Your task to perform on an android device: How big is the universe? Image 0: 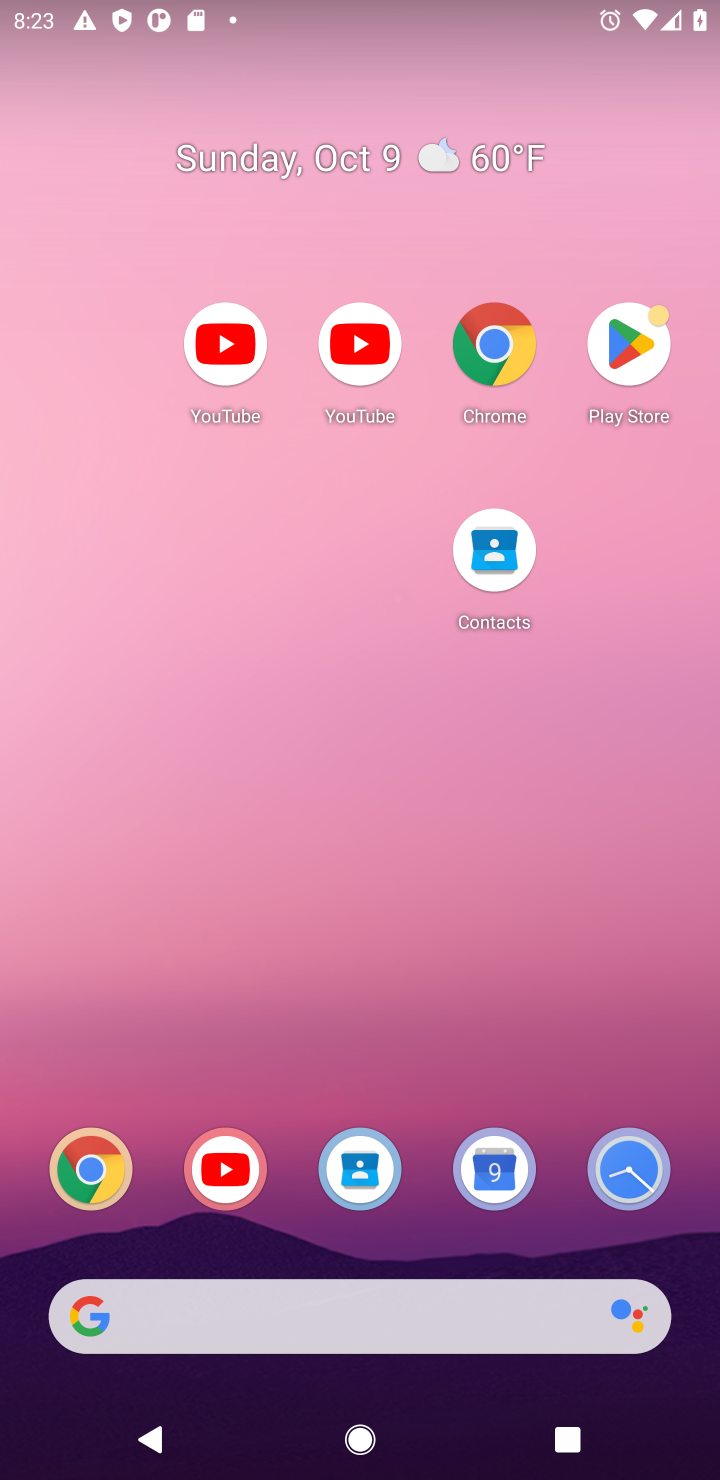
Step 0: drag from (412, 1176) to (296, 226)
Your task to perform on an android device: How big is the universe? Image 1: 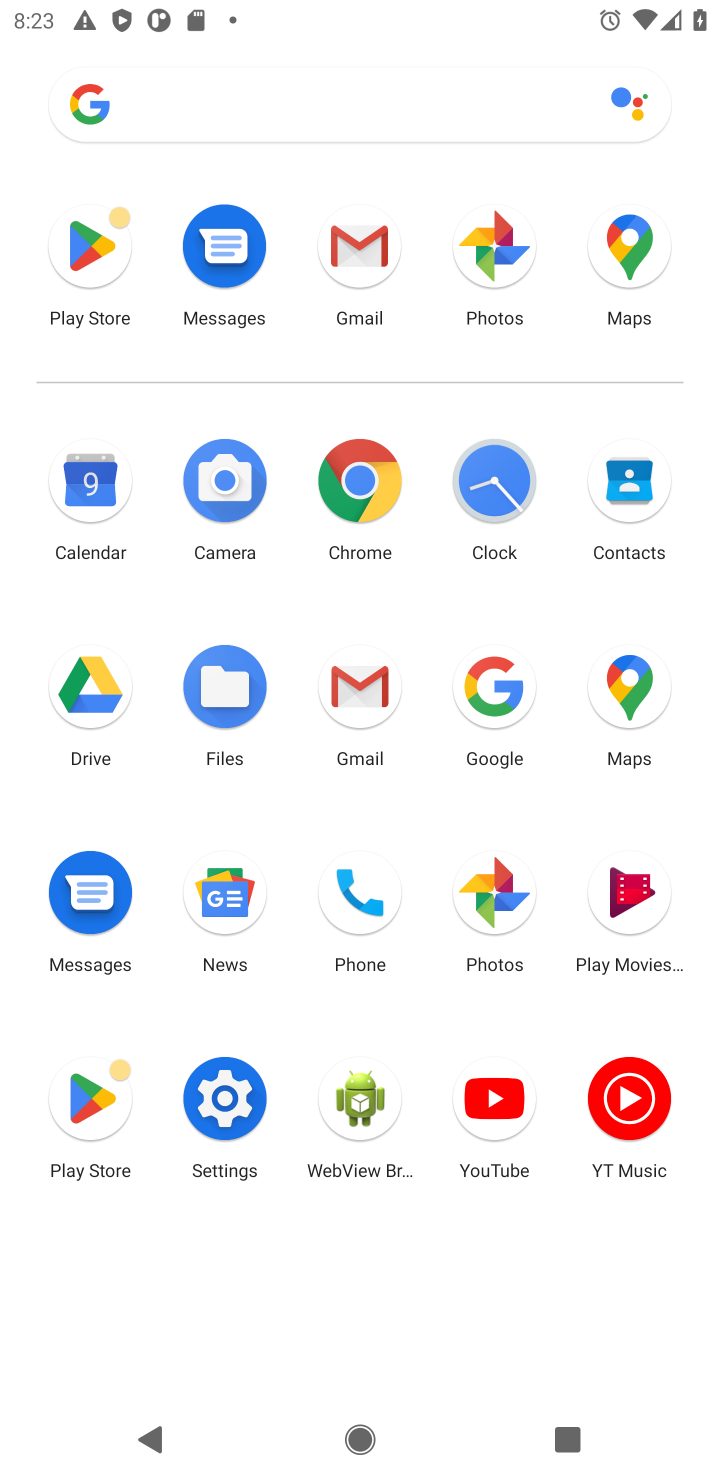
Step 1: click (354, 493)
Your task to perform on an android device: How big is the universe? Image 2: 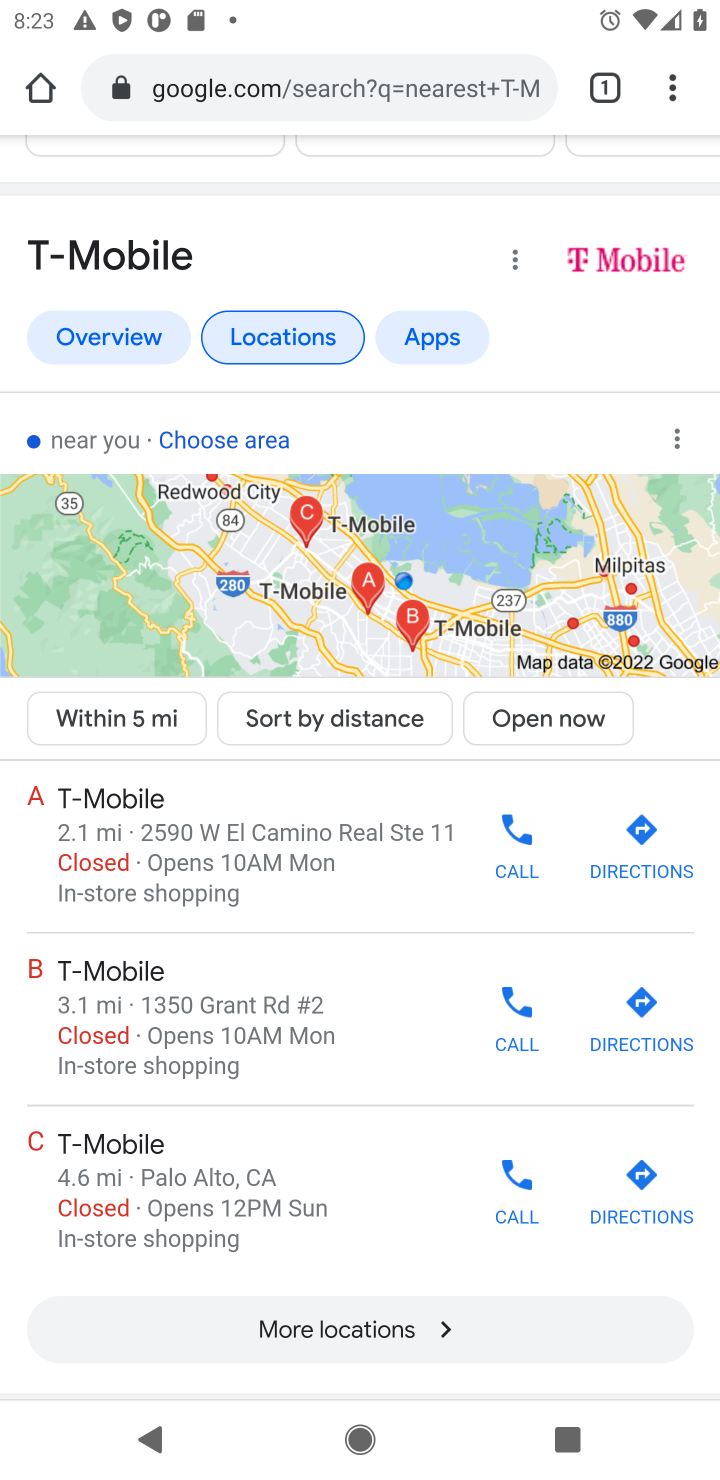
Step 2: click (397, 82)
Your task to perform on an android device: How big is the universe? Image 3: 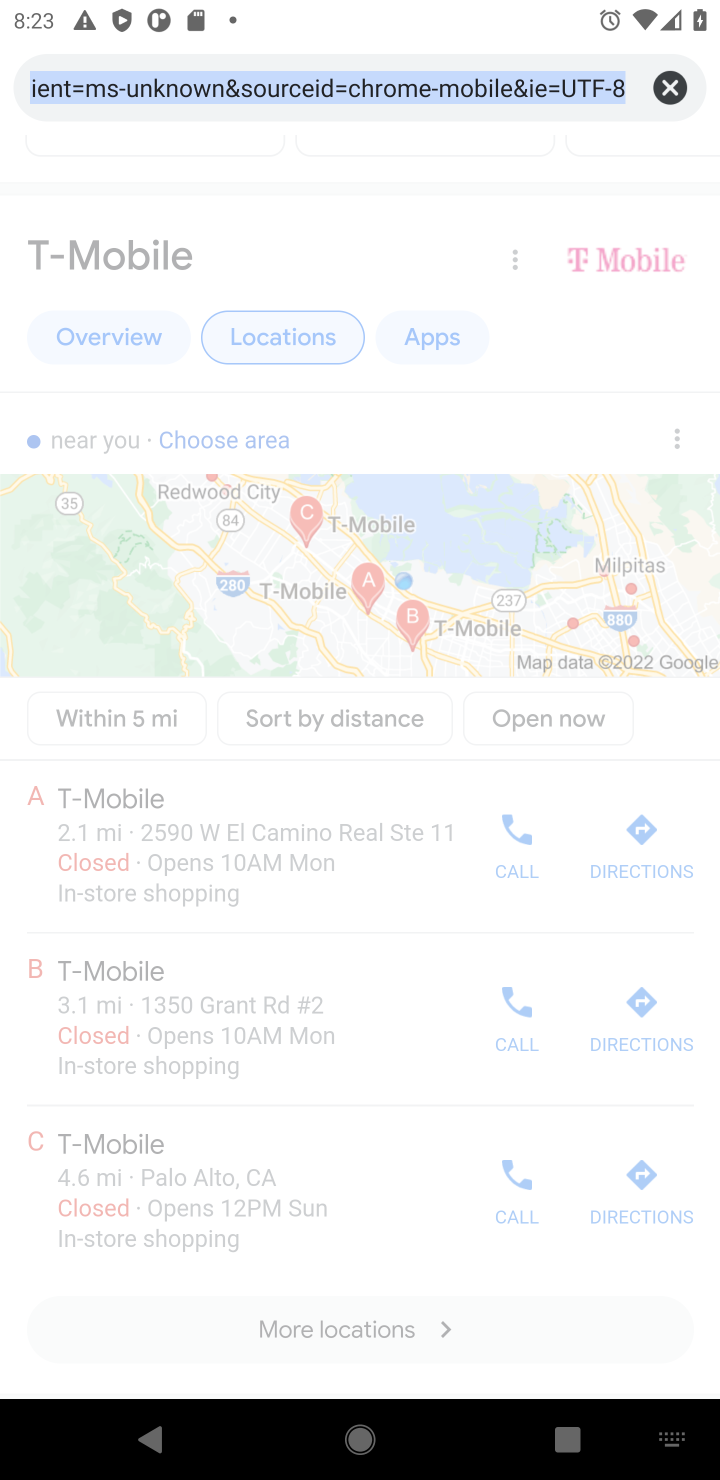
Step 3: type "How big is the universe?"
Your task to perform on an android device: How big is the universe? Image 4: 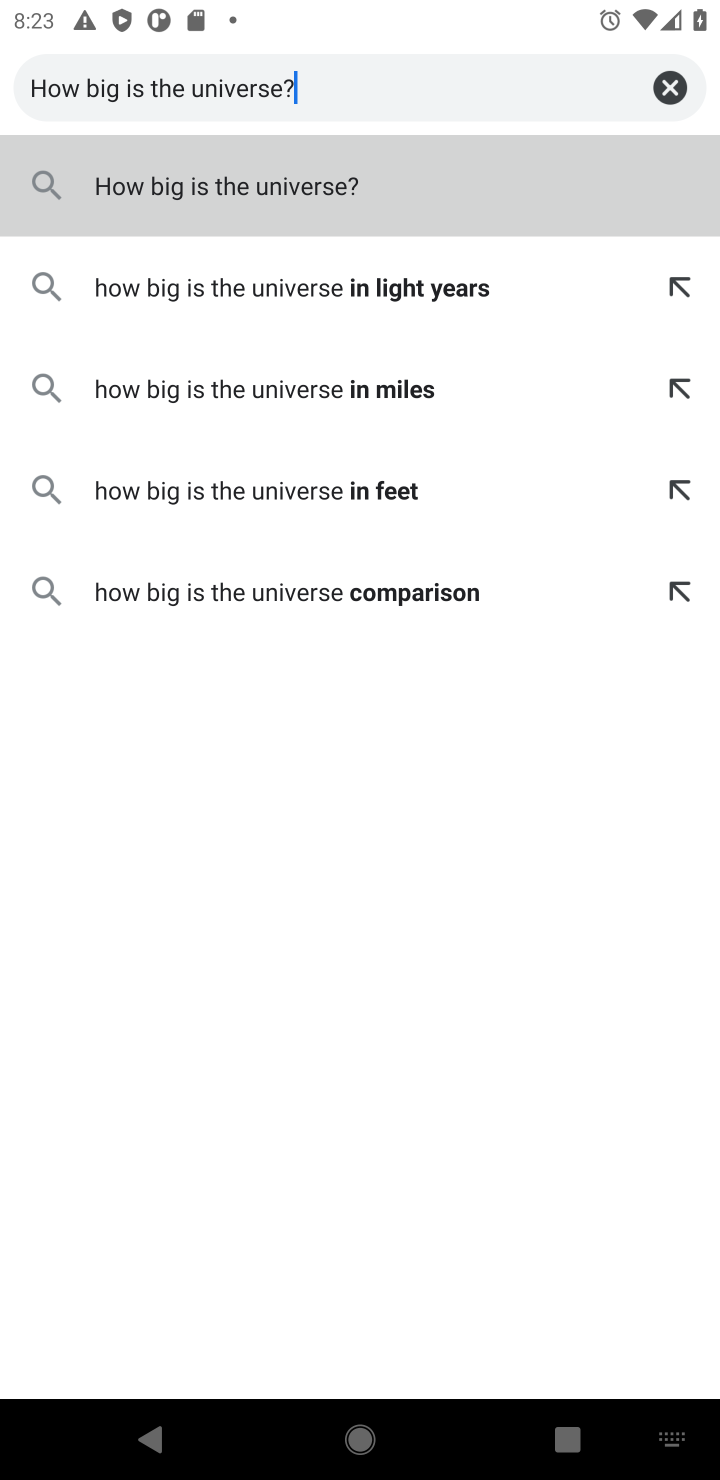
Step 4: press enter
Your task to perform on an android device: How big is the universe? Image 5: 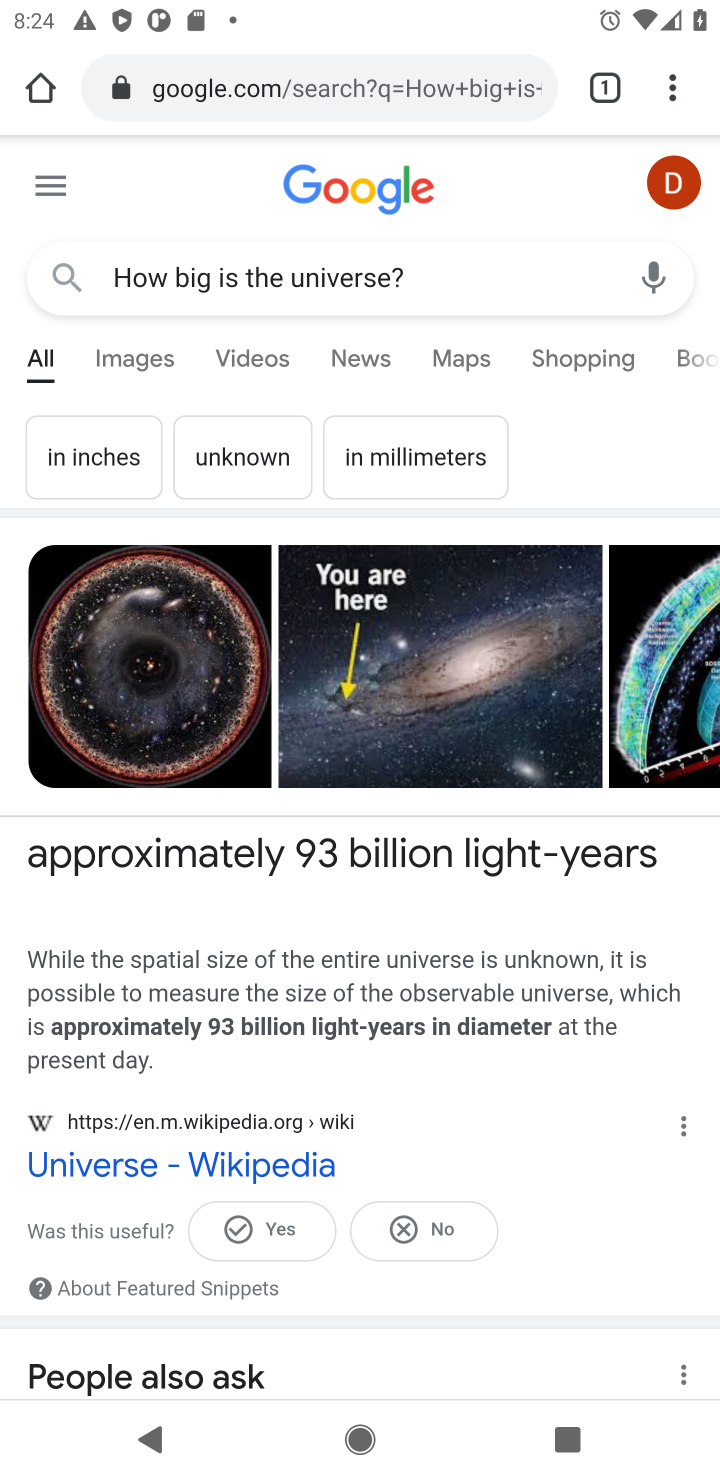
Step 5: drag from (537, 1146) to (518, 151)
Your task to perform on an android device: How big is the universe? Image 6: 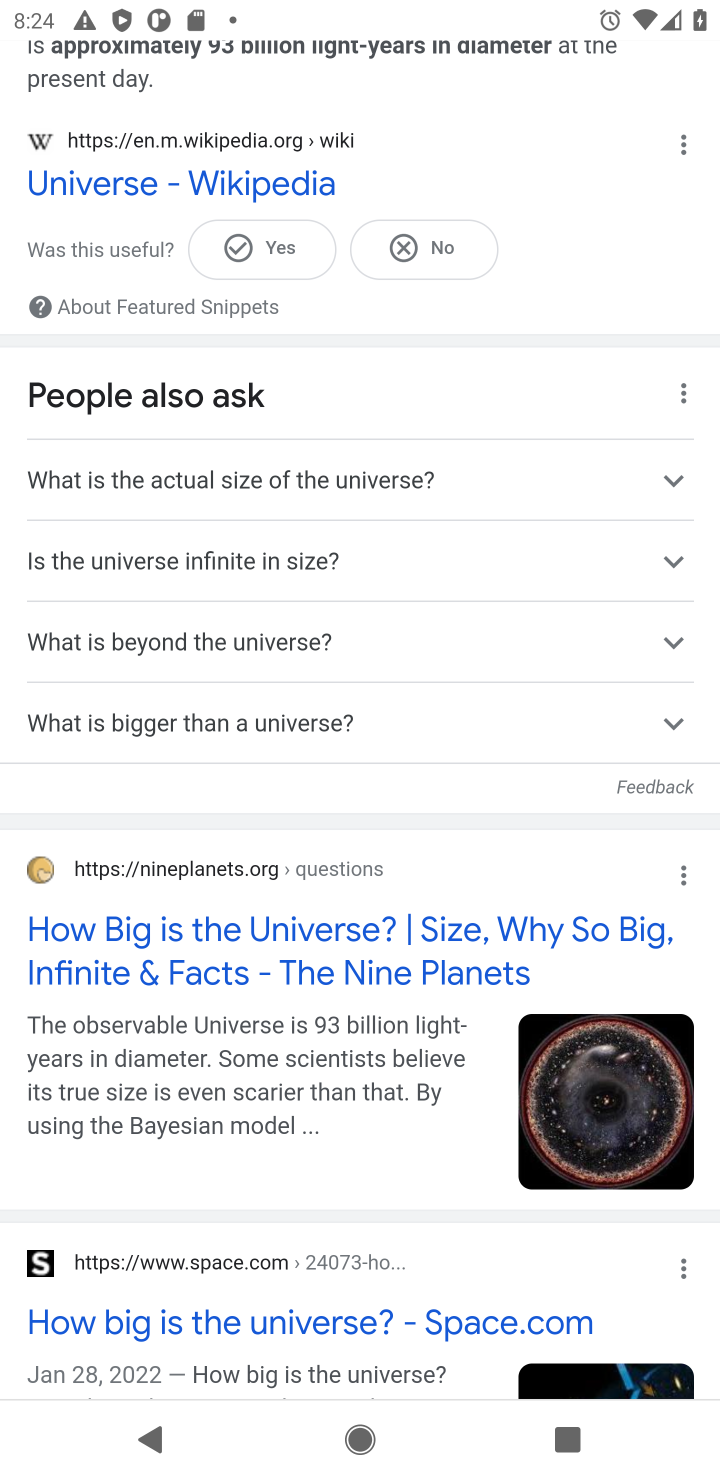
Step 6: drag from (427, 299) to (334, 1169)
Your task to perform on an android device: How big is the universe? Image 7: 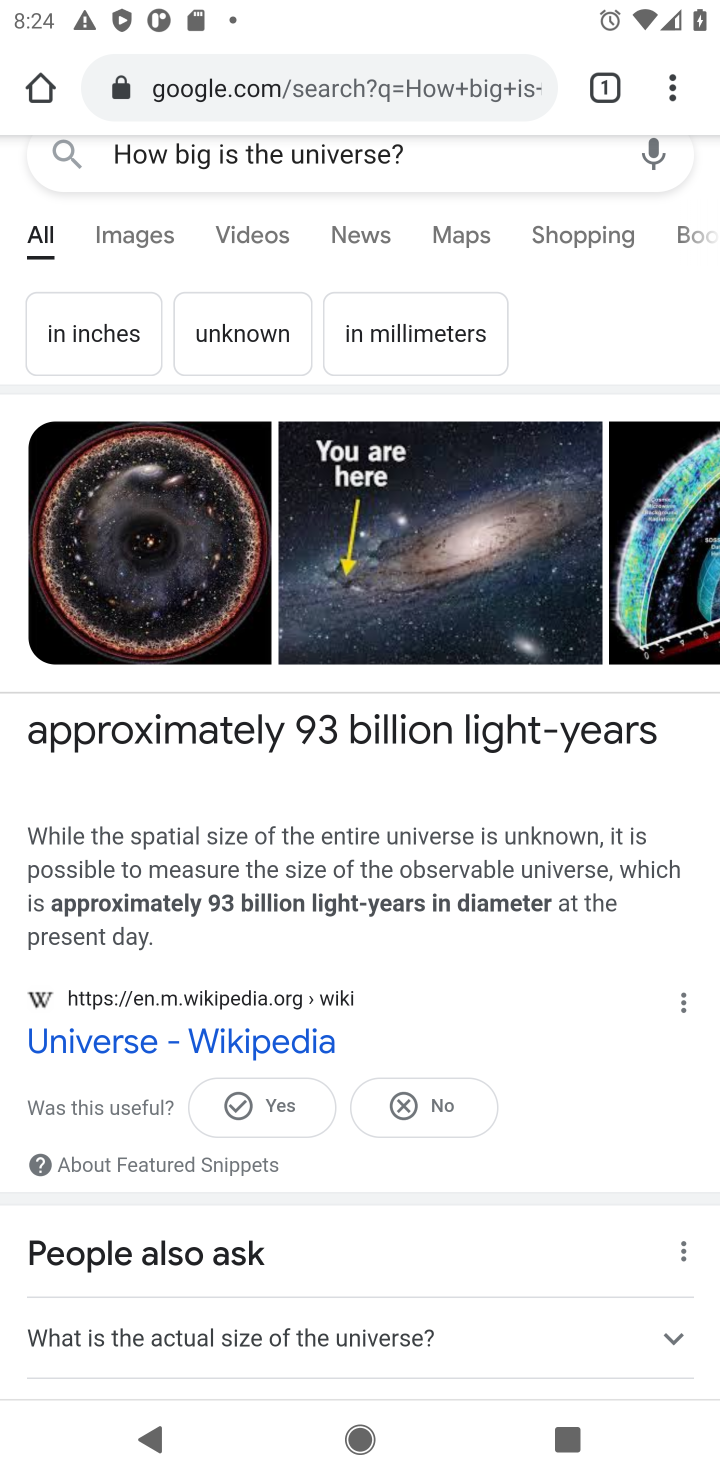
Step 7: click (296, 1047)
Your task to perform on an android device: How big is the universe? Image 8: 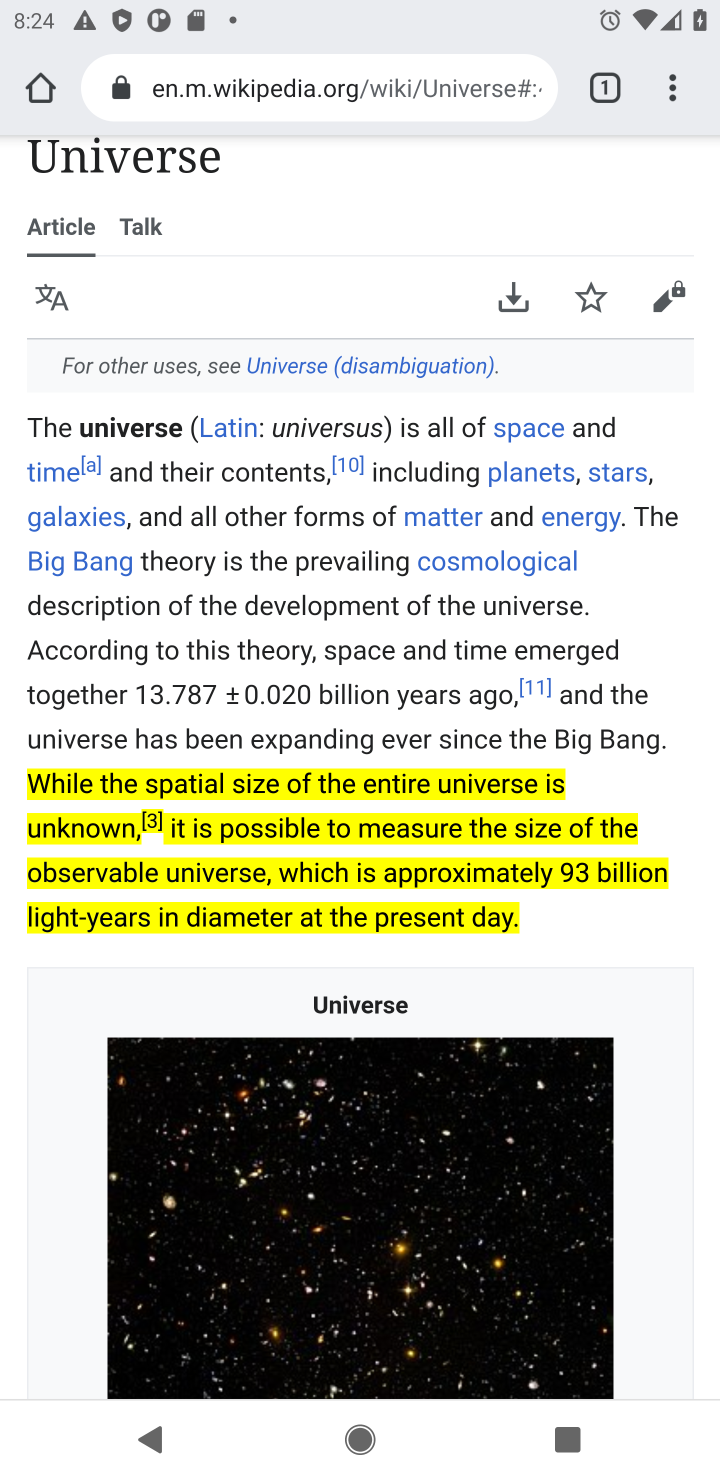
Step 8: task complete